Your task to perform on an android device: open a new tab in the chrome app Image 0: 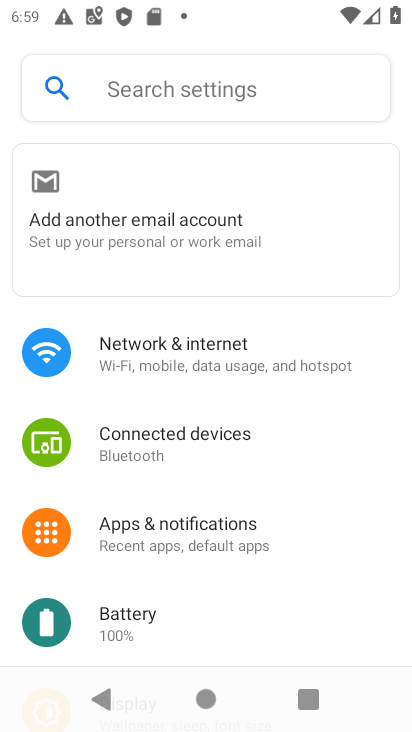
Step 0: press home button
Your task to perform on an android device: open a new tab in the chrome app Image 1: 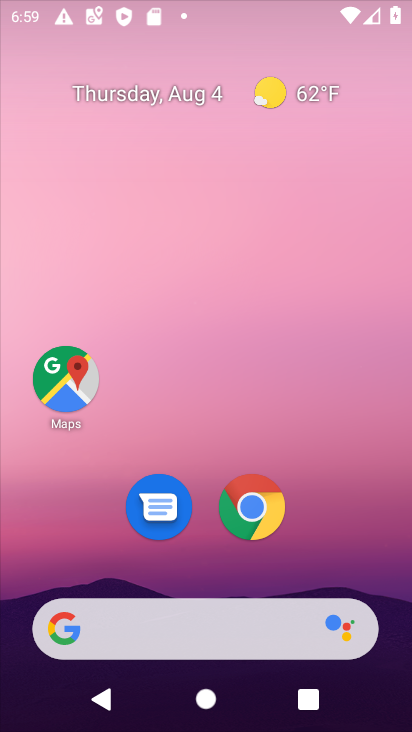
Step 1: drag from (390, 591) to (295, 28)
Your task to perform on an android device: open a new tab in the chrome app Image 2: 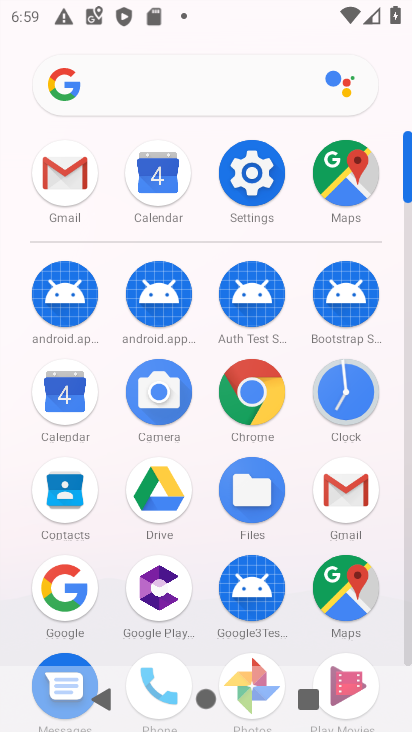
Step 2: click (258, 387)
Your task to perform on an android device: open a new tab in the chrome app Image 3: 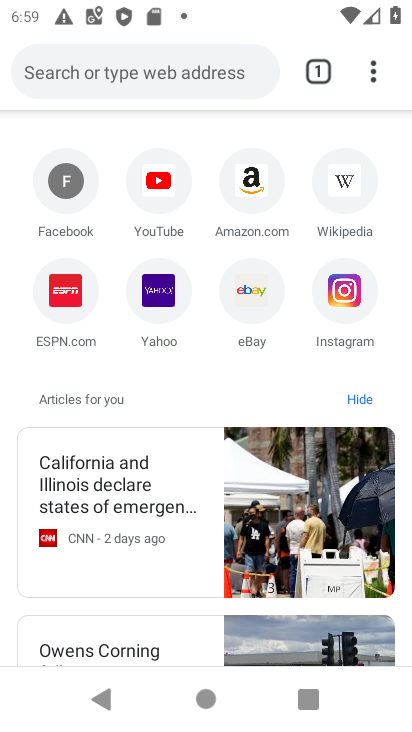
Step 3: click (374, 67)
Your task to perform on an android device: open a new tab in the chrome app Image 4: 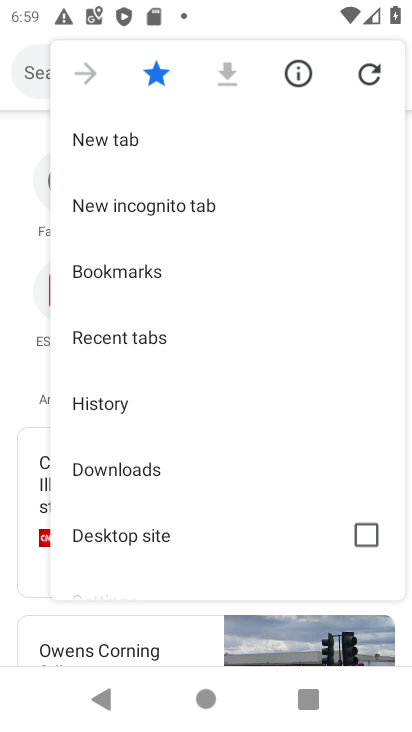
Step 4: click (142, 138)
Your task to perform on an android device: open a new tab in the chrome app Image 5: 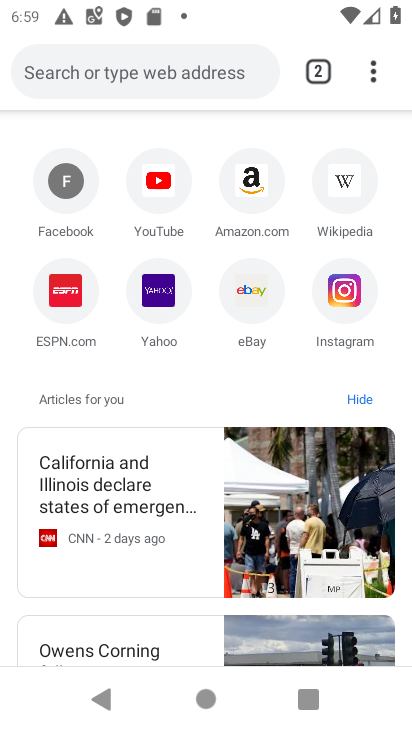
Step 5: task complete